Your task to perform on an android device: toggle improve location accuracy Image 0: 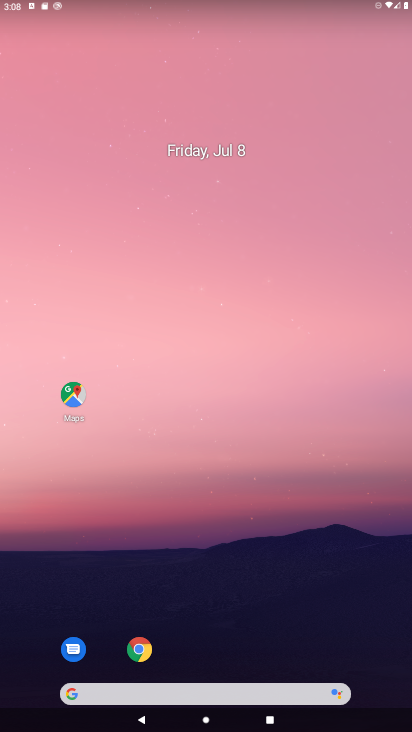
Step 0: drag from (364, 648) to (329, 74)
Your task to perform on an android device: toggle improve location accuracy Image 1: 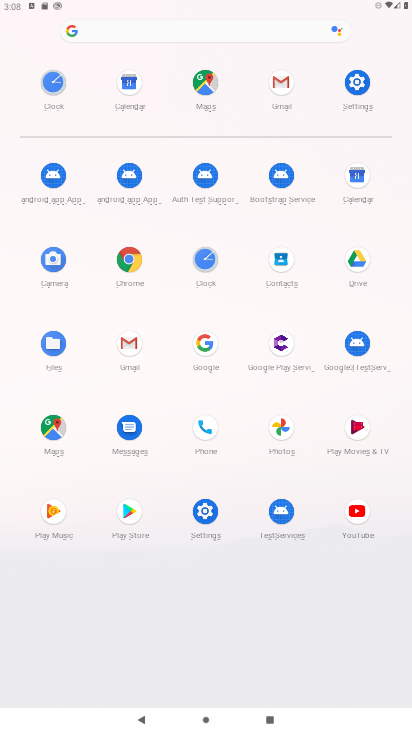
Step 1: click (204, 514)
Your task to perform on an android device: toggle improve location accuracy Image 2: 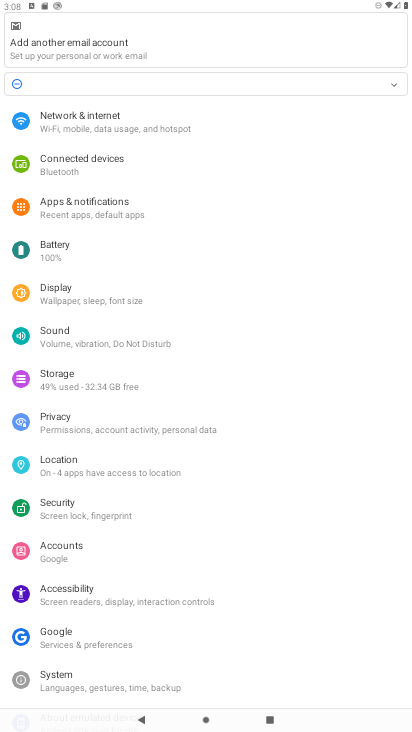
Step 2: click (55, 457)
Your task to perform on an android device: toggle improve location accuracy Image 3: 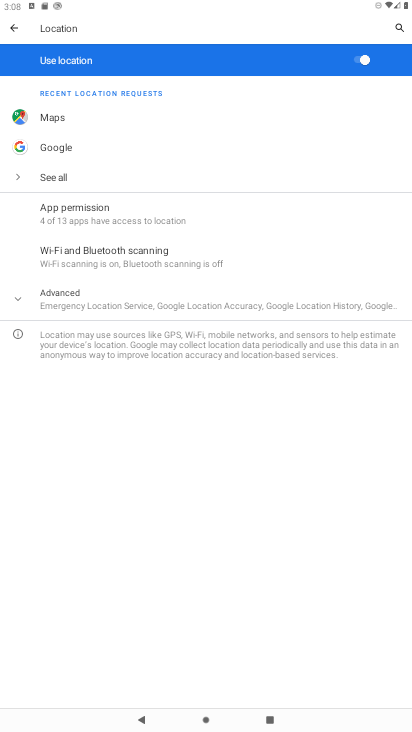
Step 3: click (41, 301)
Your task to perform on an android device: toggle improve location accuracy Image 4: 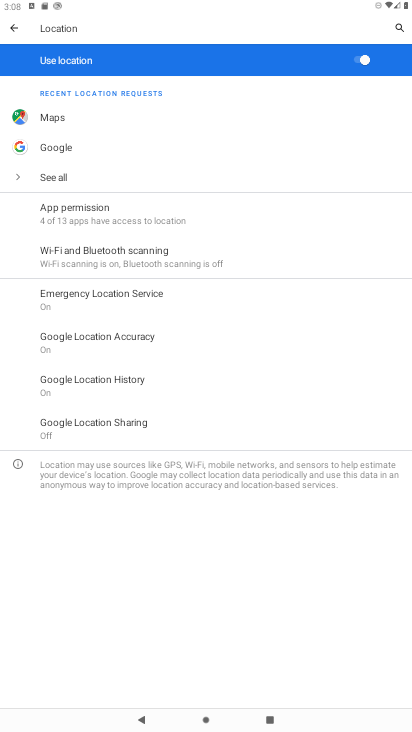
Step 4: click (99, 340)
Your task to perform on an android device: toggle improve location accuracy Image 5: 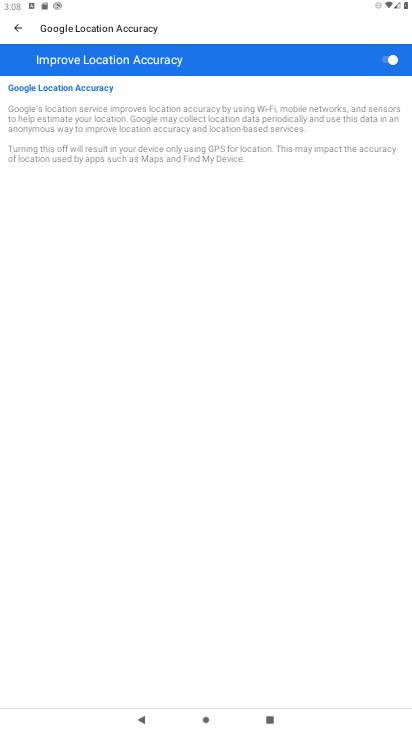
Step 5: click (383, 61)
Your task to perform on an android device: toggle improve location accuracy Image 6: 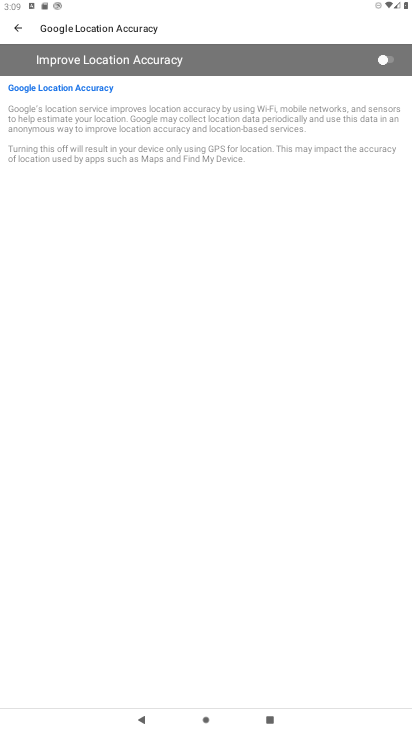
Step 6: task complete